Your task to perform on an android device: turn on translation in the chrome app Image 0: 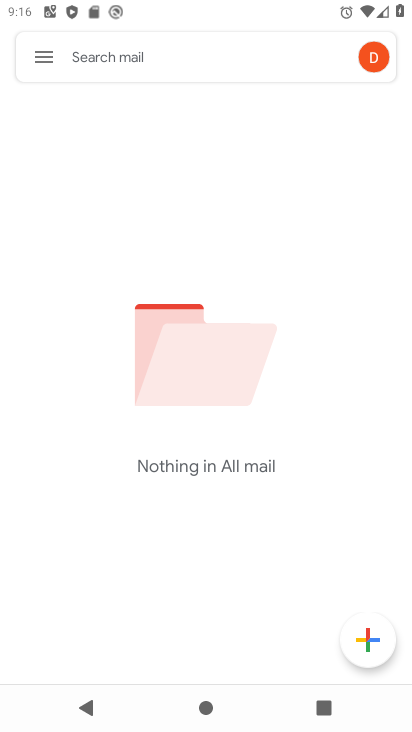
Step 0: press home button
Your task to perform on an android device: turn on translation in the chrome app Image 1: 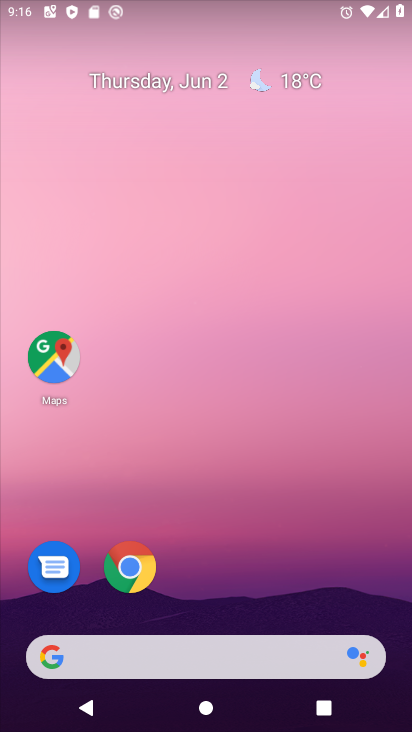
Step 1: click (135, 564)
Your task to perform on an android device: turn on translation in the chrome app Image 2: 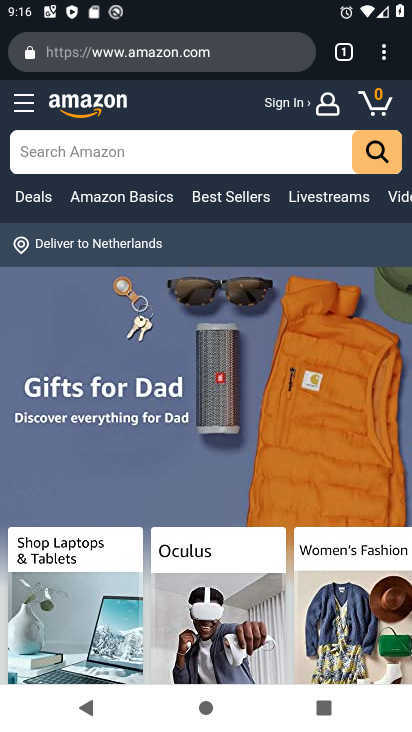
Step 2: click (136, 563)
Your task to perform on an android device: turn on translation in the chrome app Image 3: 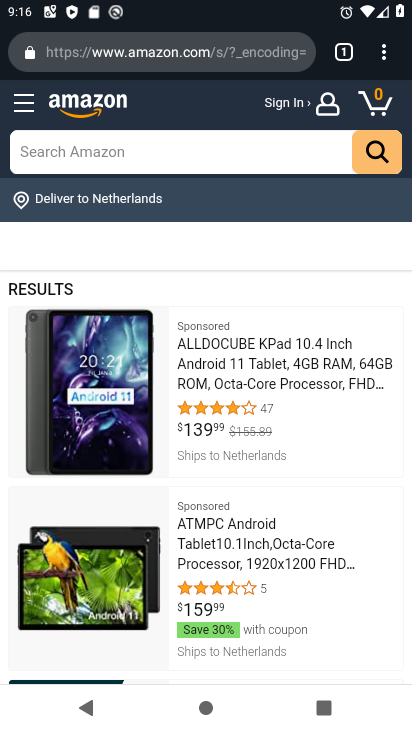
Step 3: click (124, 571)
Your task to perform on an android device: turn on translation in the chrome app Image 4: 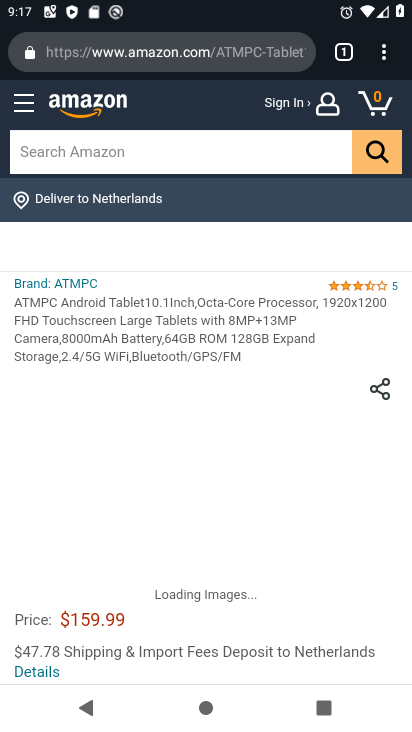
Step 4: click (383, 46)
Your task to perform on an android device: turn on translation in the chrome app Image 5: 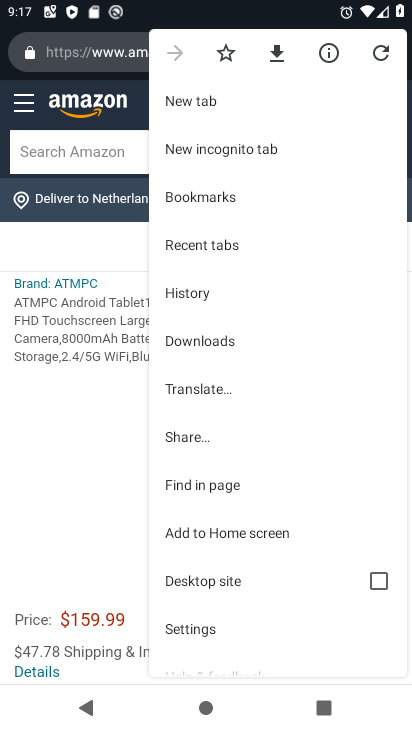
Step 5: click (186, 617)
Your task to perform on an android device: turn on translation in the chrome app Image 6: 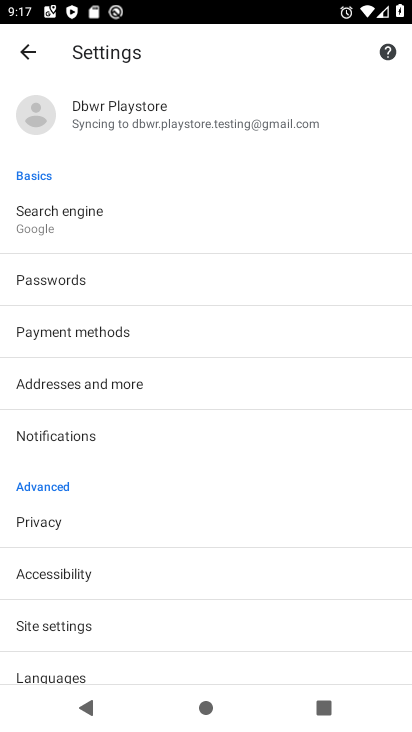
Step 6: drag from (83, 528) to (125, 312)
Your task to perform on an android device: turn on translation in the chrome app Image 7: 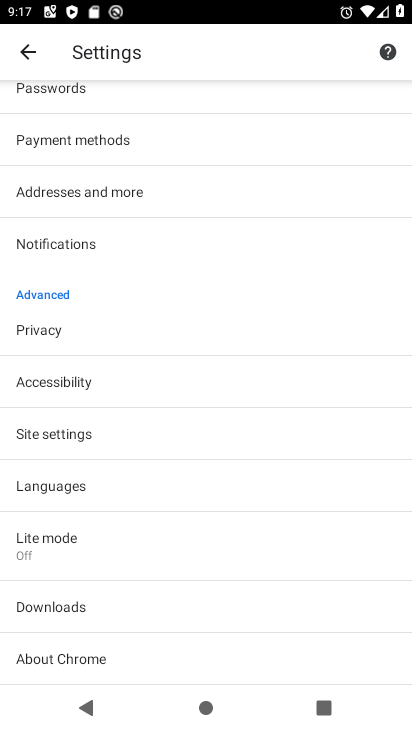
Step 7: click (68, 481)
Your task to perform on an android device: turn on translation in the chrome app Image 8: 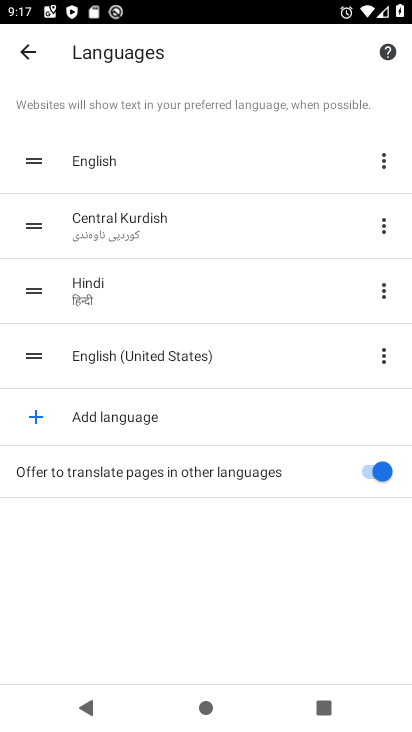
Step 8: task complete